Your task to perform on an android device: open chrome and create a bookmark for the current page Image 0: 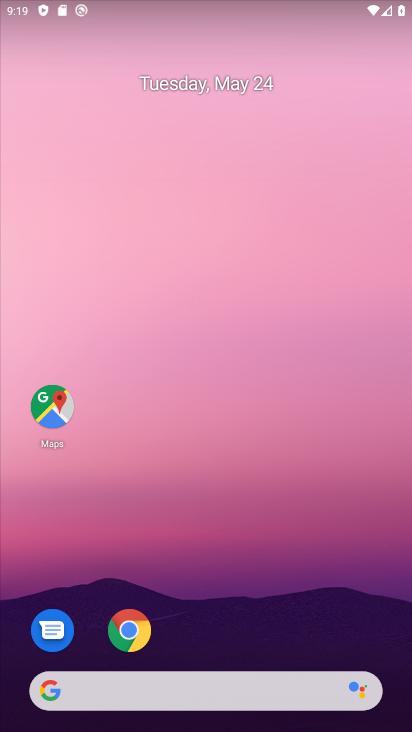
Step 0: press home button
Your task to perform on an android device: open chrome and create a bookmark for the current page Image 1: 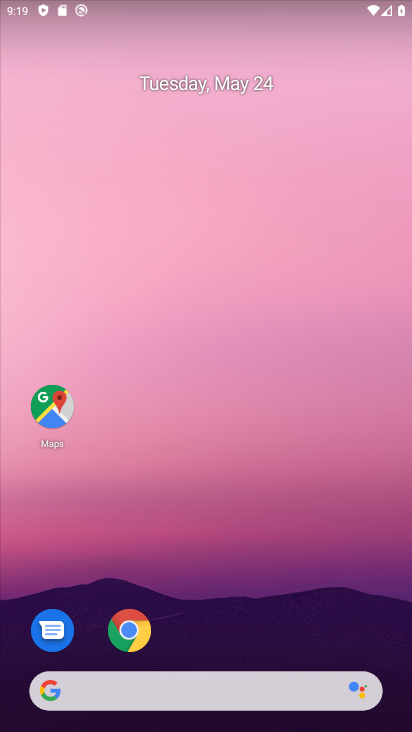
Step 1: click (124, 625)
Your task to perform on an android device: open chrome and create a bookmark for the current page Image 2: 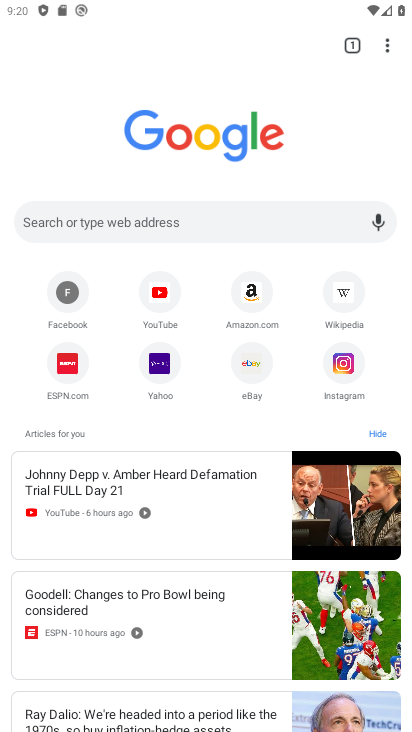
Step 2: click (385, 40)
Your task to perform on an android device: open chrome and create a bookmark for the current page Image 3: 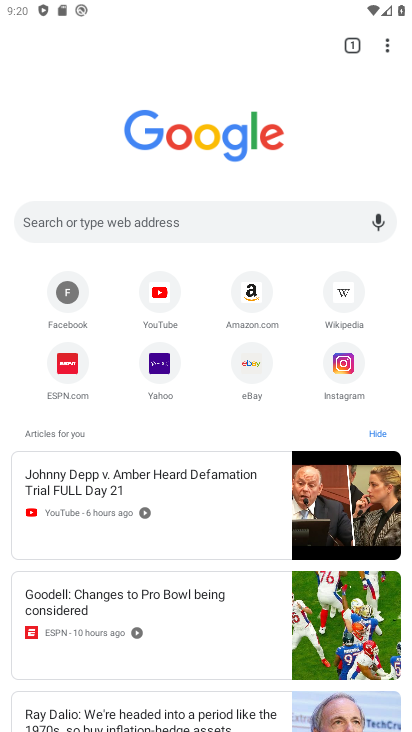
Step 3: click (385, 41)
Your task to perform on an android device: open chrome and create a bookmark for the current page Image 4: 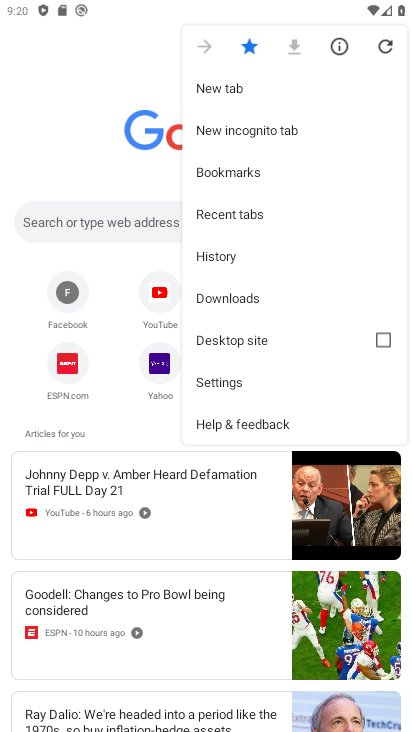
Step 4: click (265, 172)
Your task to perform on an android device: open chrome and create a bookmark for the current page Image 5: 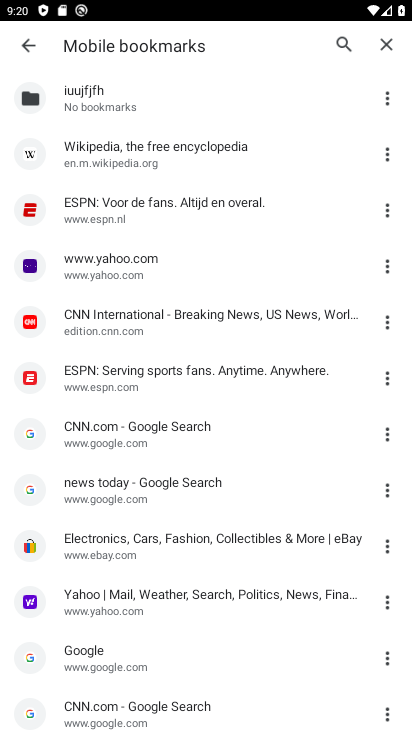
Step 5: click (152, 494)
Your task to perform on an android device: open chrome and create a bookmark for the current page Image 6: 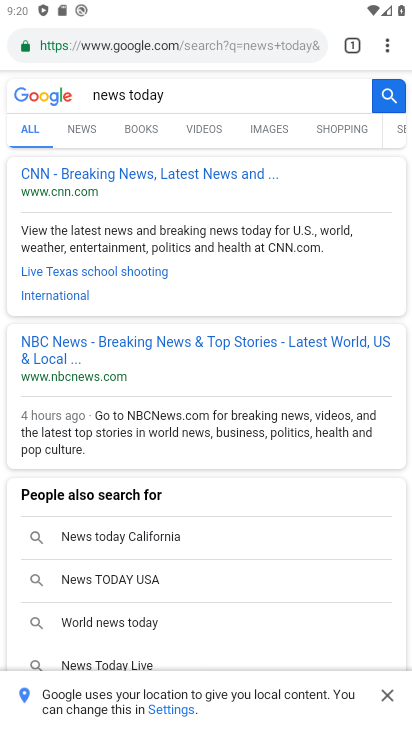
Step 6: task complete